Your task to perform on an android device: Is it going to rain this weekend? Image 0: 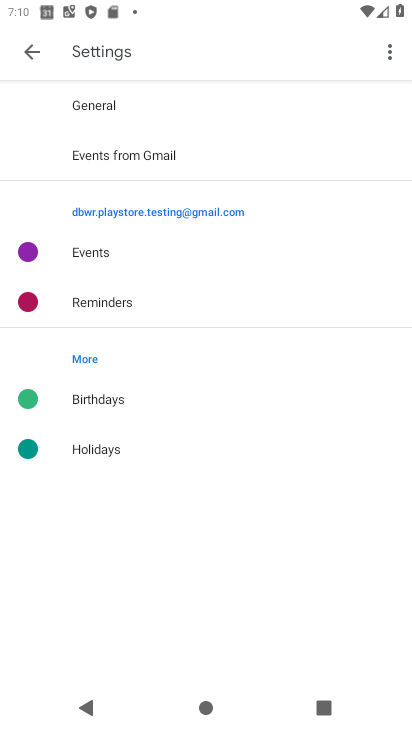
Step 0: press home button
Your task to perform on an android device: Is it going to rain this weekend? Image 1: 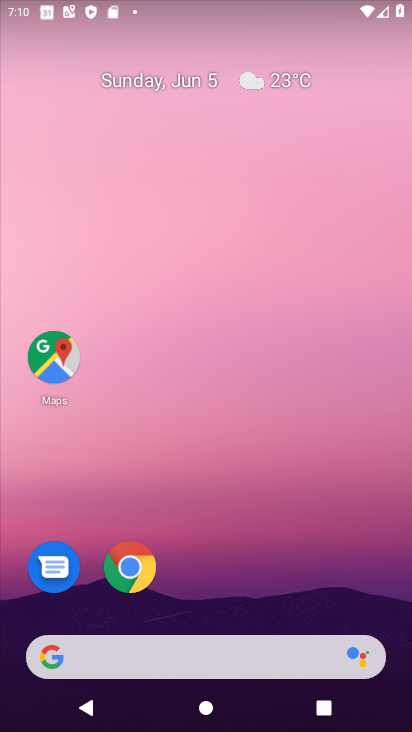
Step 1: click (339, 33)
Your task to perform on an android device: Is it going to rain this weekend? Image 2: 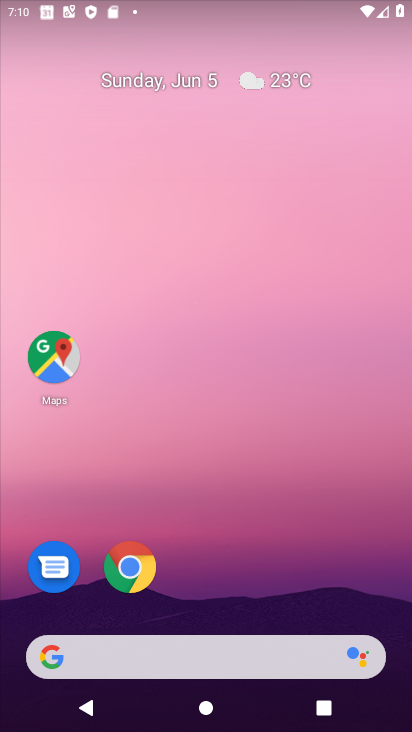
Step 2: drag from (385, 624) to (373, 277)
Your task to perform on an android device: Is it going to rain this weekend? Image 3: 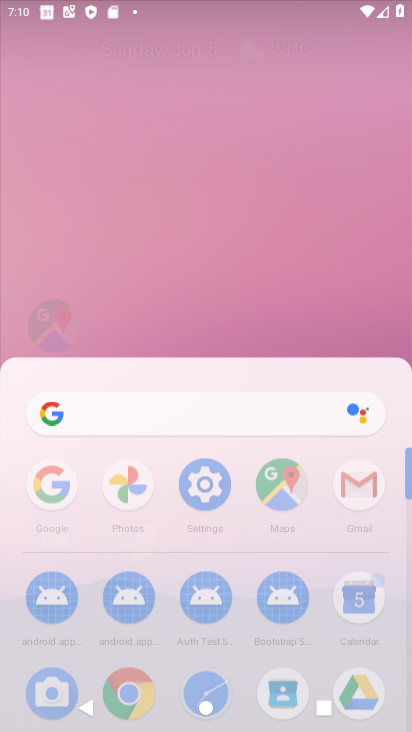
Step 3: click (344, 70)
Your task to perform on an android device: Is it going to rain this weekend? Image 4: 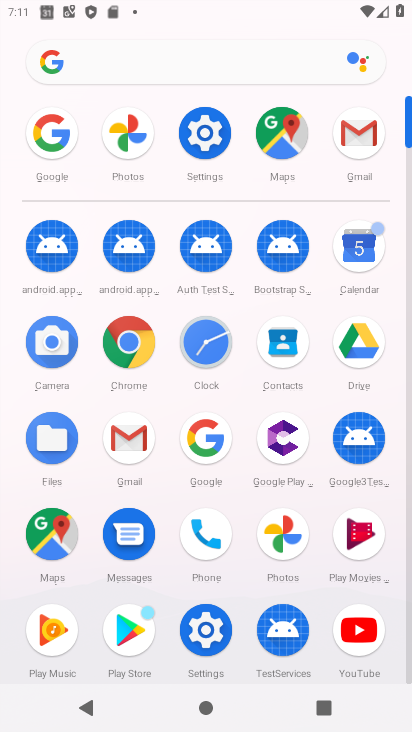
Step 4: click (185, 442)
Your task to perform on an android device: Is it going to rain this weekend? Image 5: 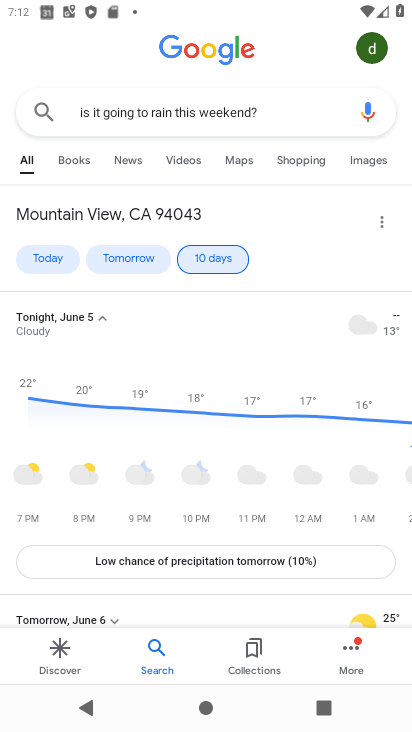
Step 5: task complete